Your task to perform on an android device: set the stopwatch Image 0: 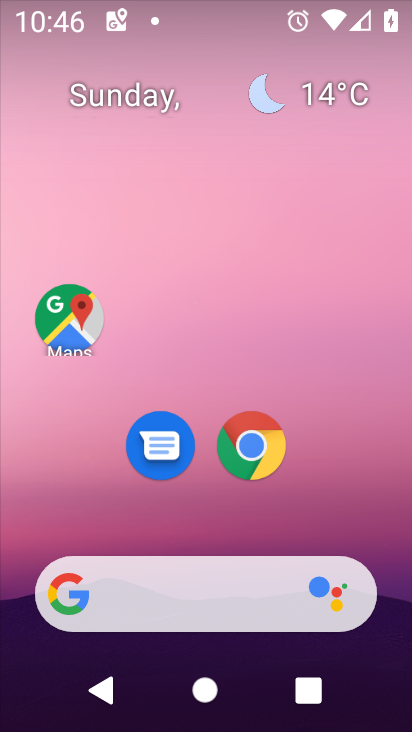
Step 0: drag from (198, 547) to (288, 41)
Your task to perform on an android device: set the stopwatch Image 1: 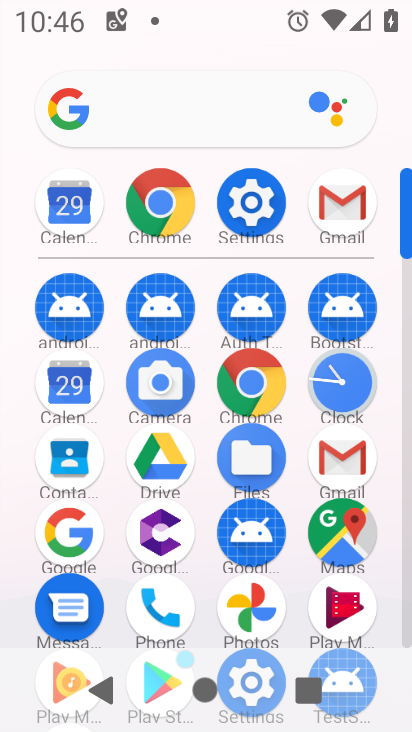
Step 1: click (339, 390)
Your task to perform on an android device: set the stopwatch Image 2: 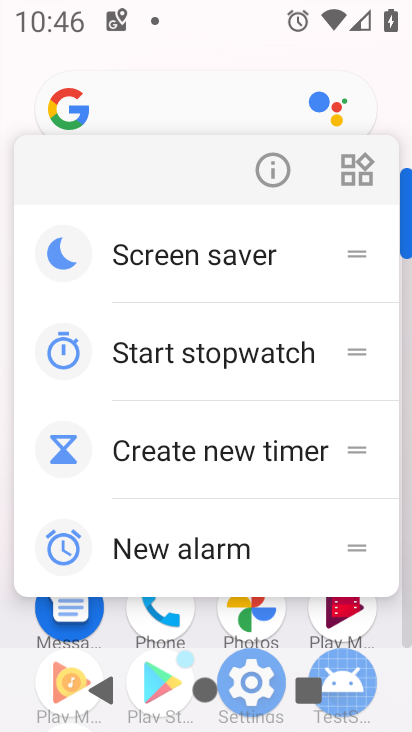
Step 2: click (266, 175)
Your task to perform on an android device: set the stopwatch Image 3: 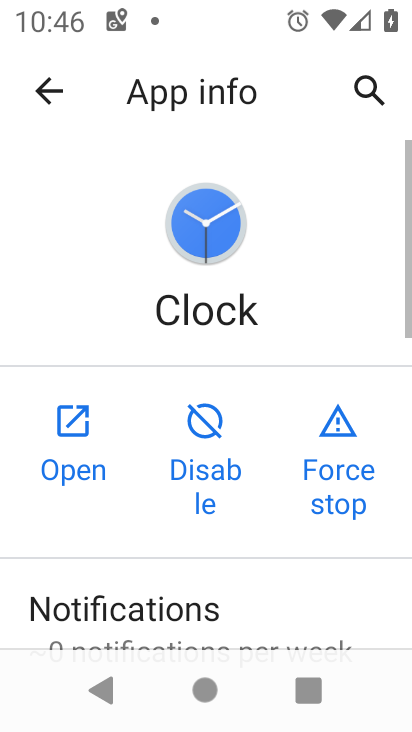
Step 3: click (76, 418)
Your task to perform on an android device: set the stopwatch Image 4: 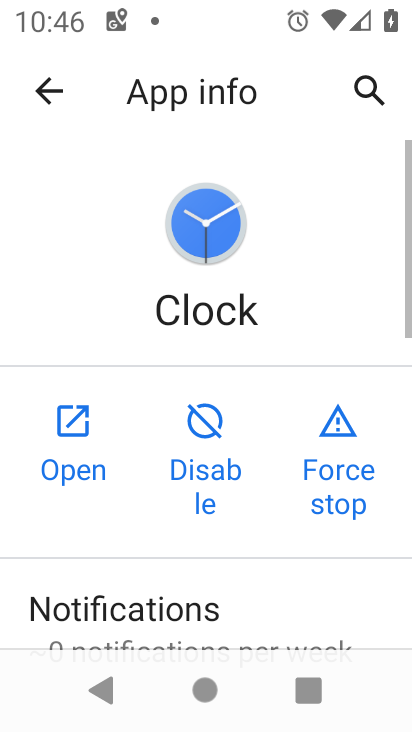
Step 4: click (76, 420)
Your task to perform on an android device: set the stopwatch Image 5: 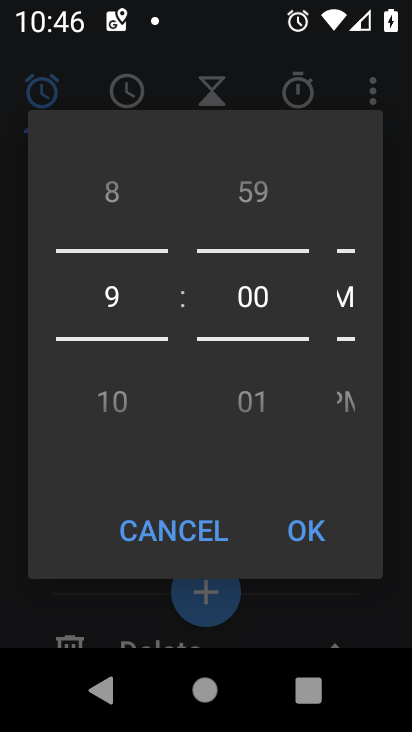
Step 5: click (172, 524)
Your task to perform on an android device: set the stopwatch Image 6: 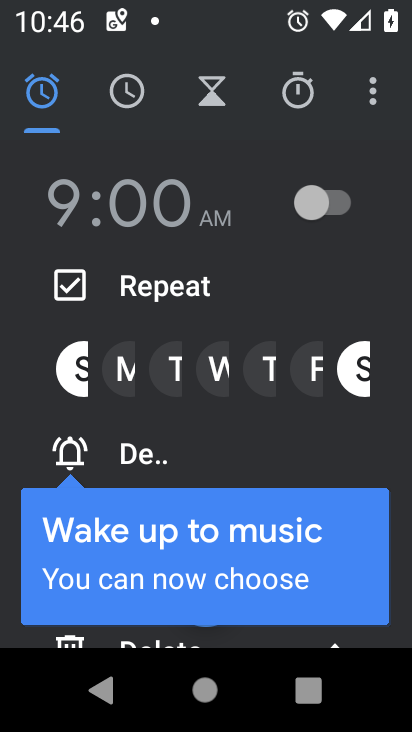
Step 6: click (301, 90)
Your task to perform on an android device: set the stopwatch Image 7: 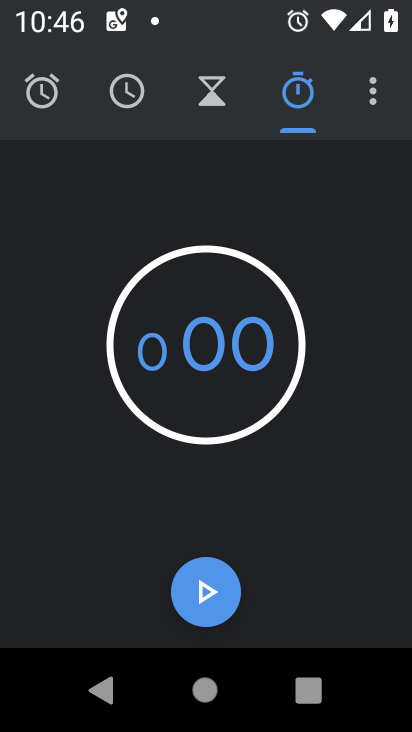
Step 7: click (202, 582)
Your task to perform on an android device: set the stopwatch Image 8: 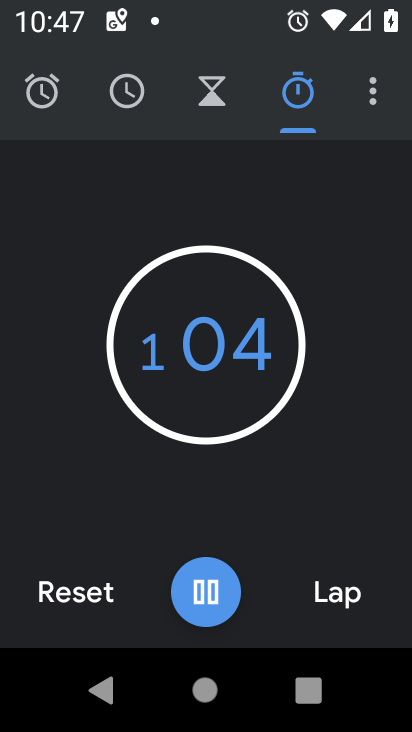
Step 8: task complete